Your task to perform on an android device: Open Reddit.com Image 0: 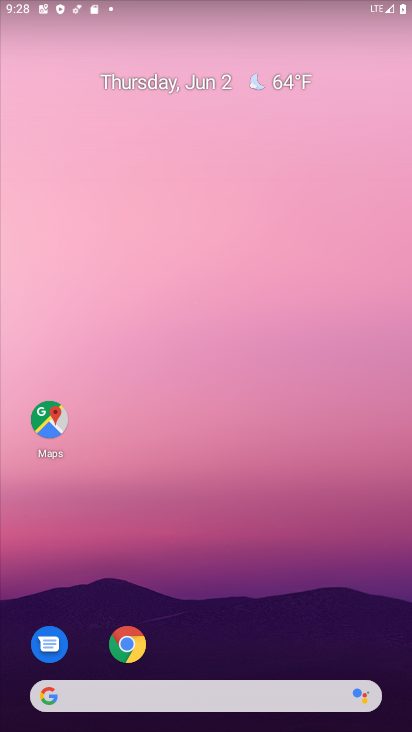
Step 0: press home button
Your task to perform on an android device: Open Reddit.com Image 1: 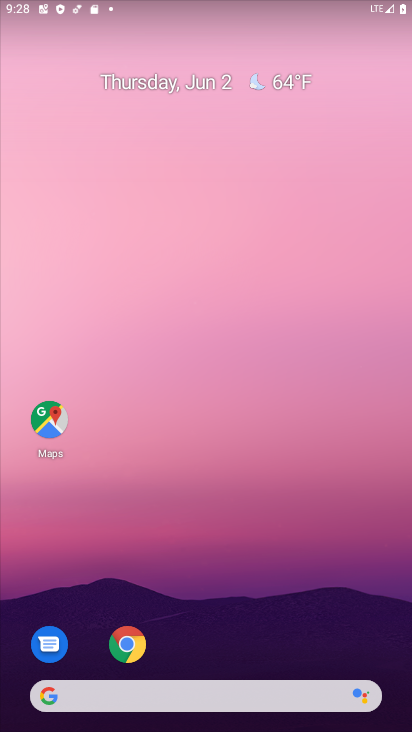
Step 1: drag from (278, 619) to (284, 120)
Your task to perform on an android device: Open Reddit.com Image 2: 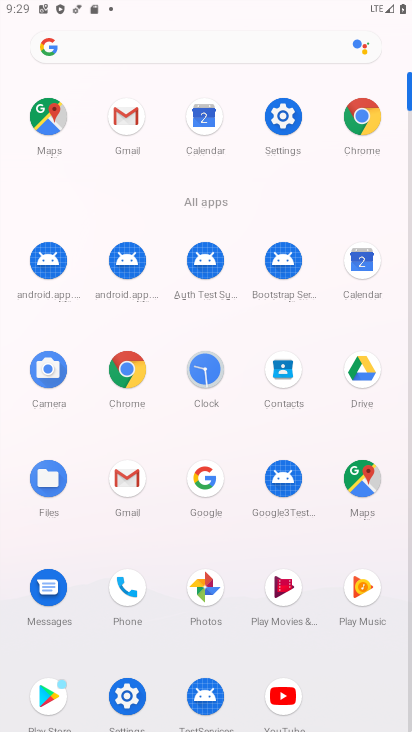
Step 2: click (126, 369)
Your task to perform on an android device: Open Reddit.com Image 3: 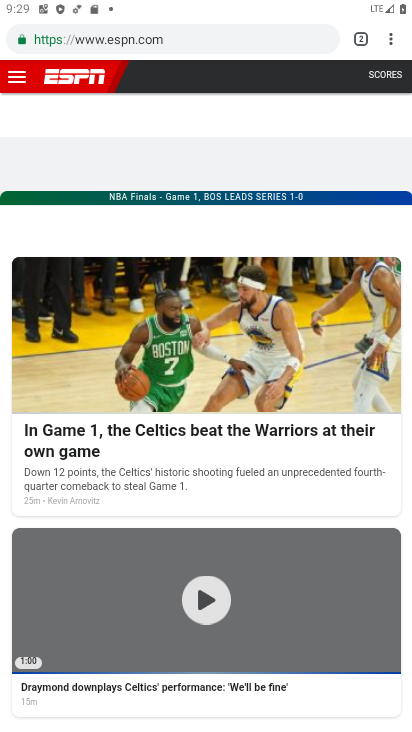
Step 3: click (242, 48)
Your task to perform on an android device: Open Reddit.com Image 4: 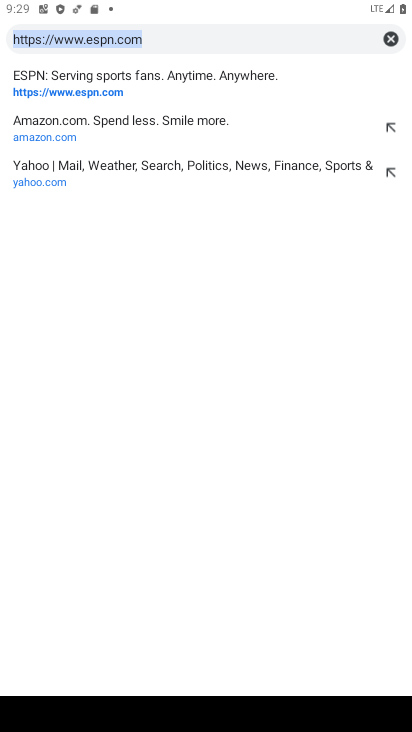
Step 4: click (385, 35)
Your task to perform on an android device: Open Reddit.com Image 5: 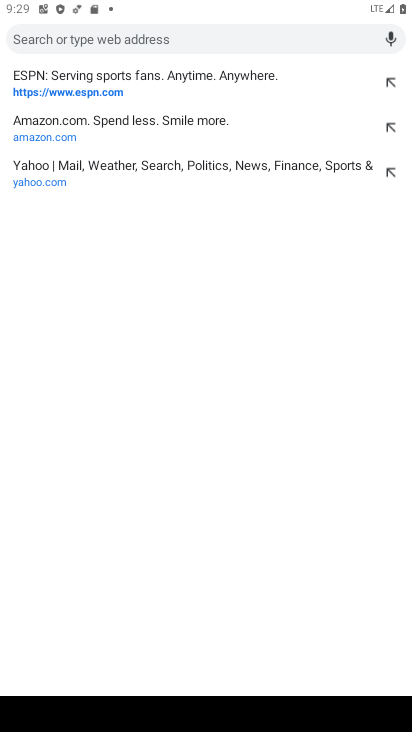
Step 5: type " Reddit.com"
Your task to perform on an android device: Open Reddit.com Image 6: 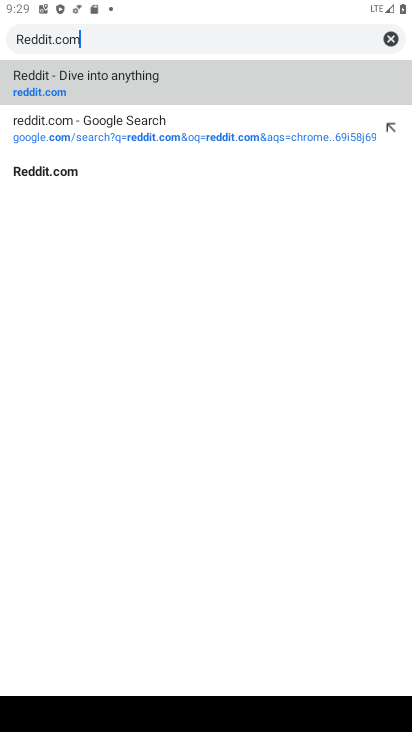
Step 6: click (62, 71)
Your task to perform on an android device: Open Reddit.com Image 7: 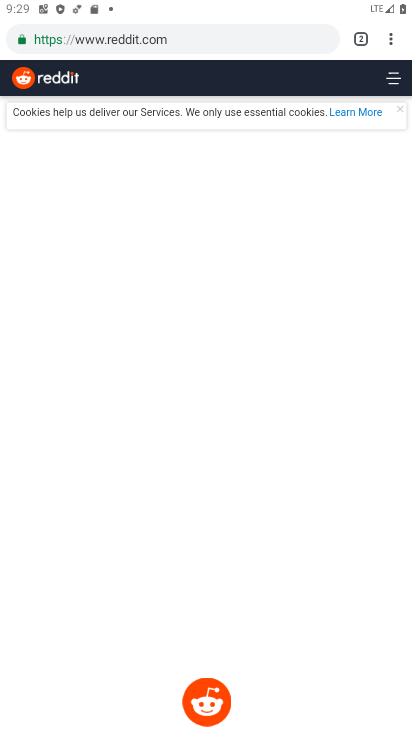
Step 7: task complete